Your task to perform on an android device: Show me popular games on the Play Store Image 0: 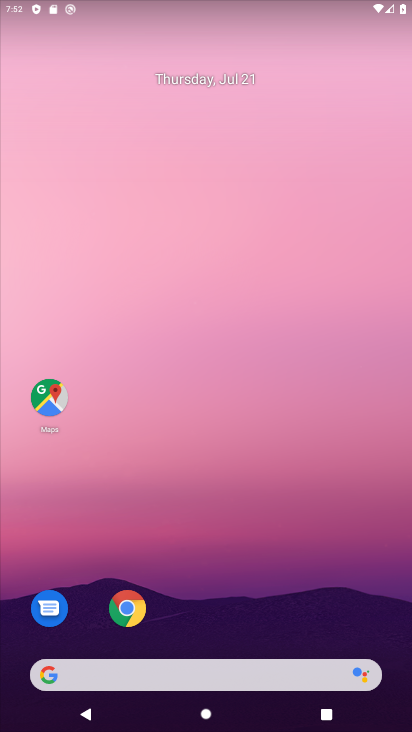
Step 0: press home button
Your task to perform on an android device: Show me popular games on the Play Store Image 1: 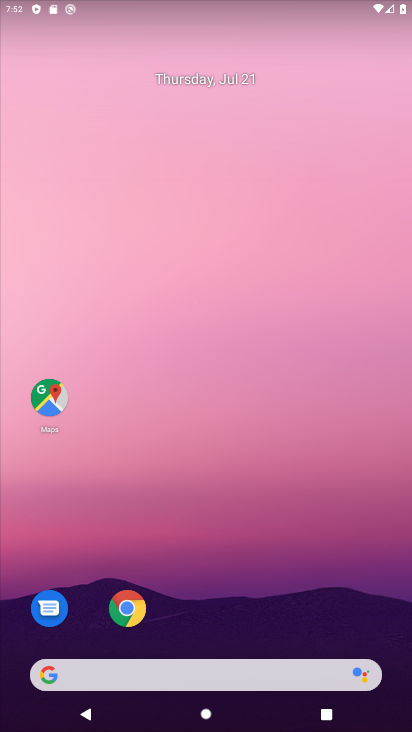
Step 1: drag from (214, 641) to (227, 86)
Your task to perform on an android device: Show me popular games on the Play Store Image 2: 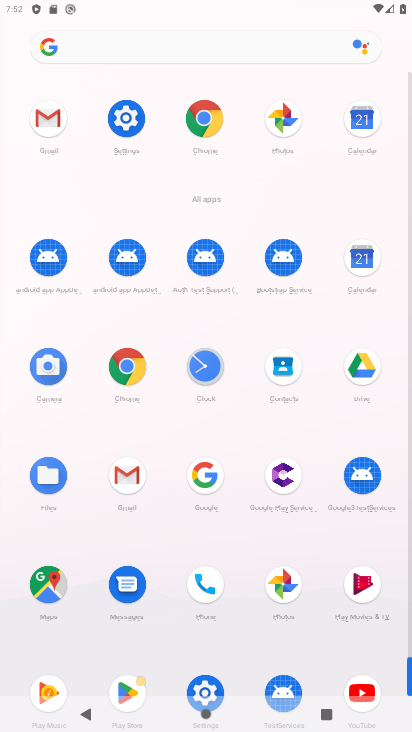
Step 2: drag from (168, 626) to (177, 87)
Your task to perform on an android device: Show me popular games on the Play Store Image 3: 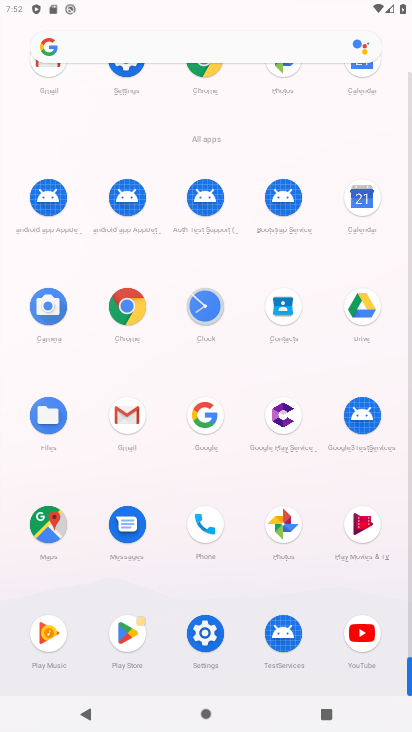
Step 3: click (124, 628)
Your task to perform on an android device: Show me popular games on the Play Store Image 4: 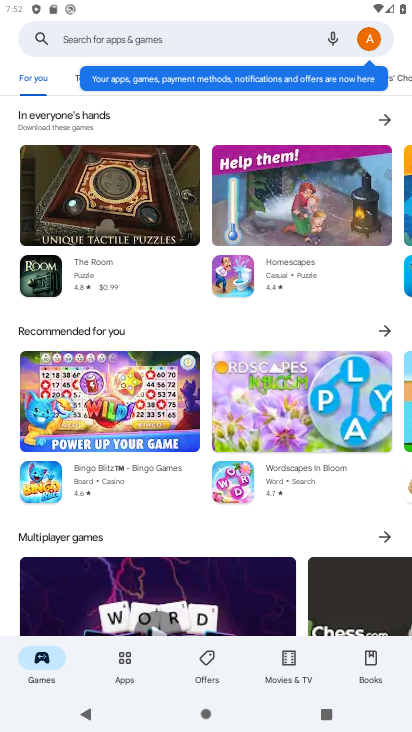
Step 4: drag from (177, 528) to (196, 288)
Your task to perform on an android device: Show me popular games on the Play Store Image 5: 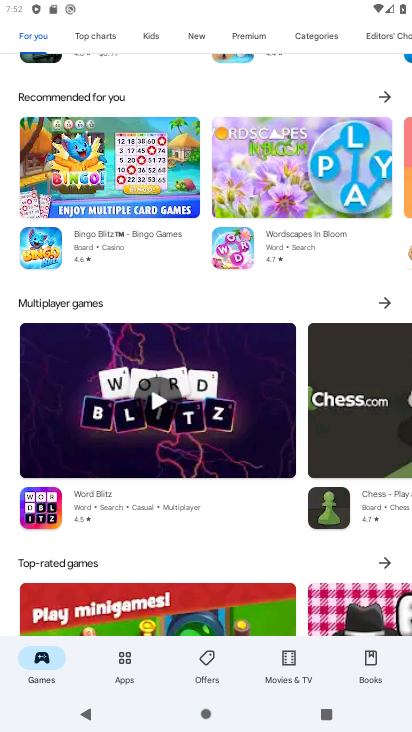
Step 5: drag from (210, 556) to (235, 186)
Your task to perform on an android device: Show me popular games on the Play Store Image 6: 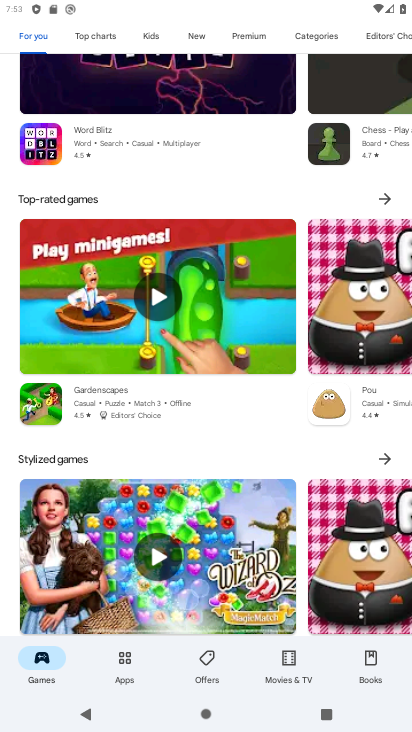
Step 6: drag from (183, 461) to (208, 109)
Your task to perform on an android device: Show me popular games on the Play Store Image 7: 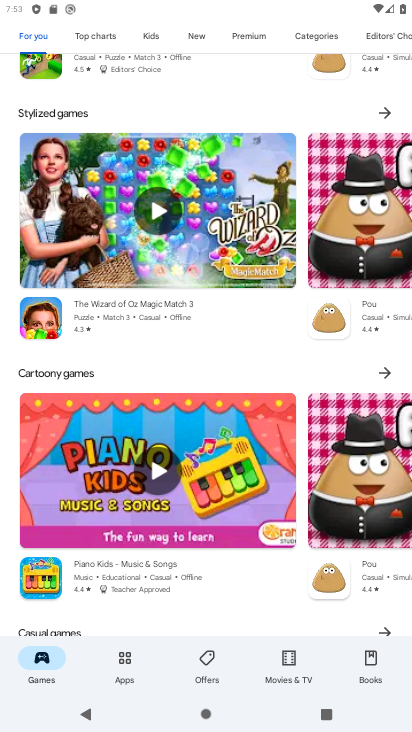
Step 7: drag from (185, 370) to (215, 75)
Your task to perform on an android device: Show me popular games on the Play Store Image 8: 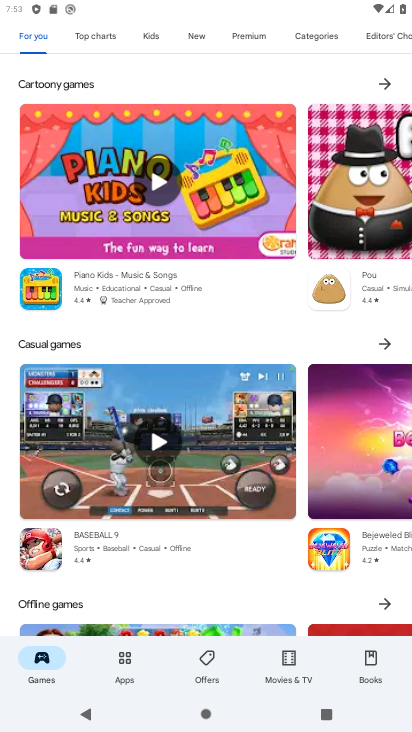
Step 8: drag from (200, 553) to (214, 93)
Your task to perform on an android device: Show me popular games on the Play Store Image 9: 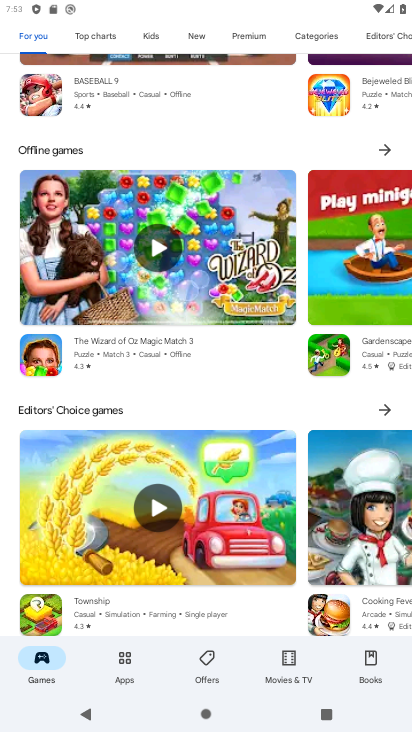
Step 9: drag from (216, 409) to (249, 19)
Your task to perform on an android device: Show me popular games on the Play Store Image 10: 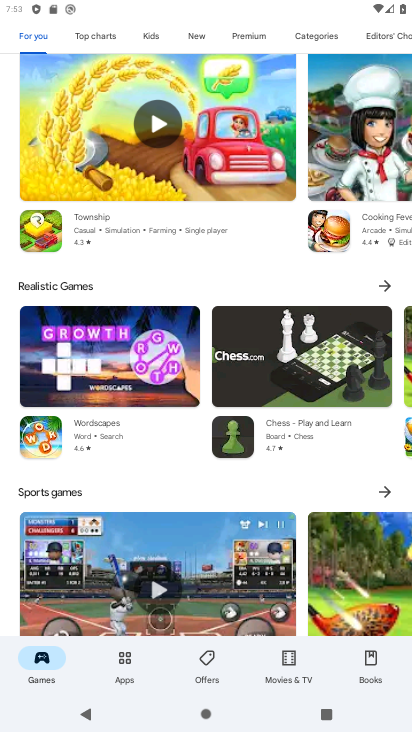
Step 10: click (318, 36)
Your task to perform on an android device: Show me popular games on the Play Store Image 11: 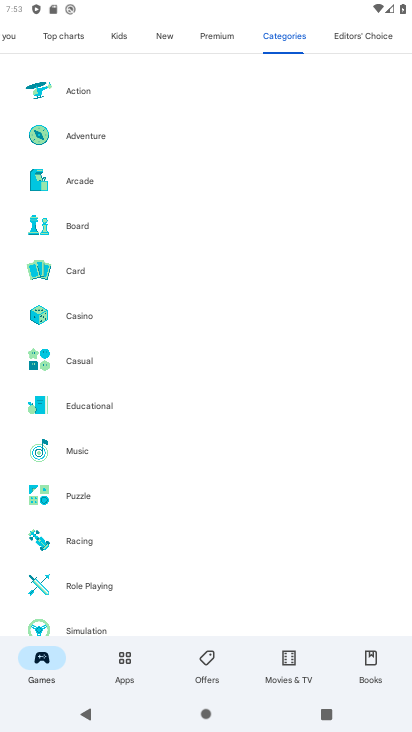
Step 11: drag from (114, 599) to (146, 166)
Your task to perform on an android device: Show me popular games on the Play Store Image 12: 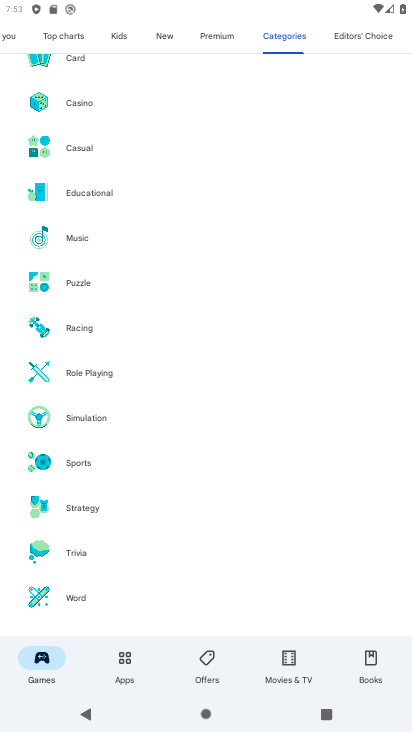
Step 12: drag from (61, 38) to (193, 37)
Your task to perform on an android device: Show me popular games on the Play Store Image 13: 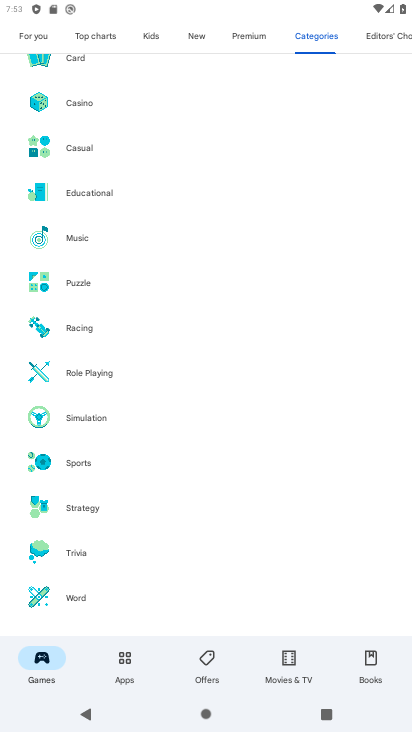
Step 13: click (30, 40)
Your task to perform on an android device: Show me popular games on the Play Store Image 14: 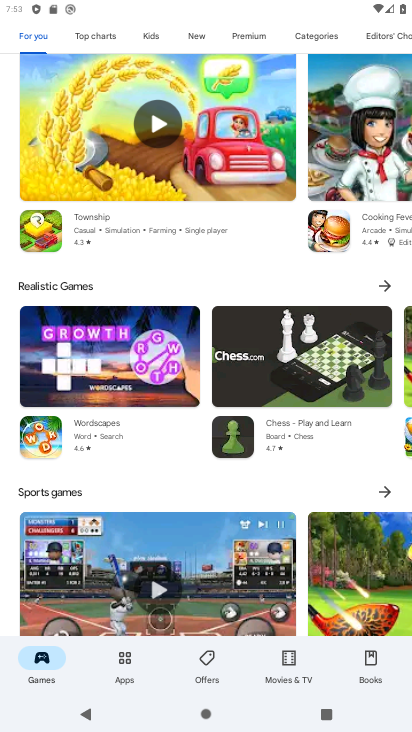
Step 14: task complete